Your task to perform on an android device: change the clock display to analog Image 0: 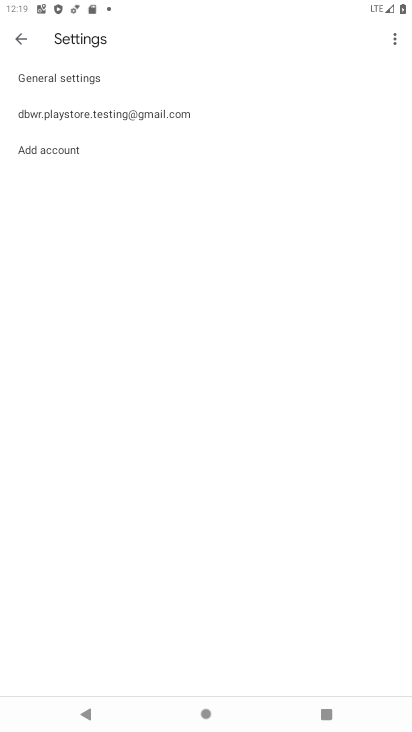
Step 0: press home button
Your task to perform on an android device: change the clock display to analog Image 1: 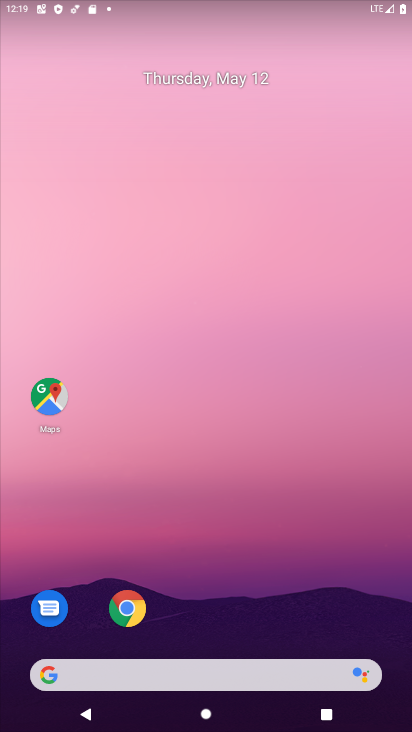
Step 1: drag from (264, 643) to (265, 108)
Your task to perform on an android device: change the clock display to analog Image 2: 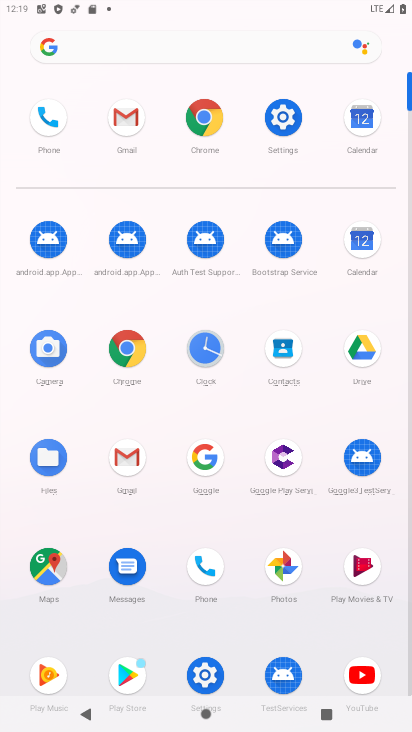
Step 2: click (208, 355)
Your task to perform on an android device: change the clock display to analog Image 3: 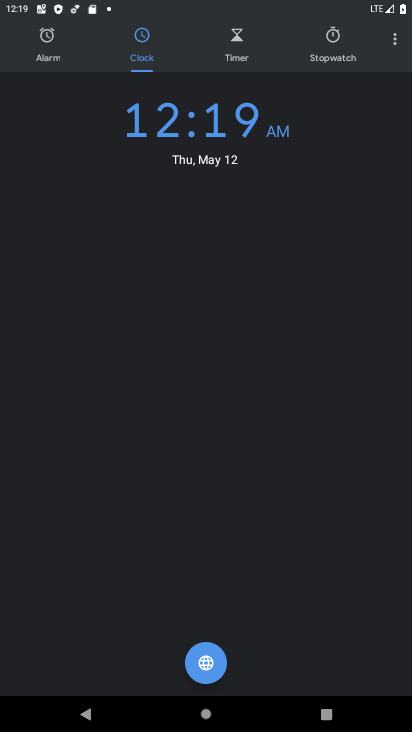
Step 3: click (400, 40)
Your task to perform on an android device: change the clock display to analog Image 4: 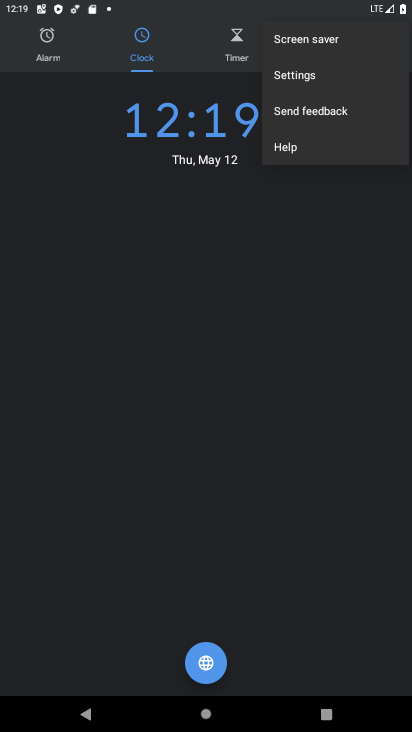
Step 4: click (301, 72)
Your task to perform on an android device: change the clock display to analog Image 5: 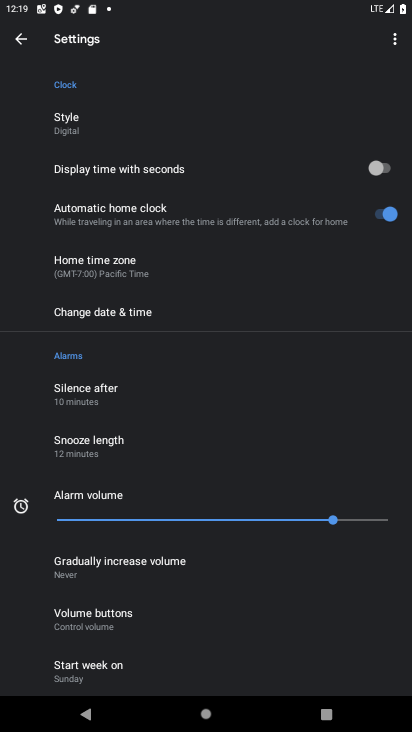
Step 5: click (72, 133)
Your task to perform on an android device: change the clock display to analog Image 6: 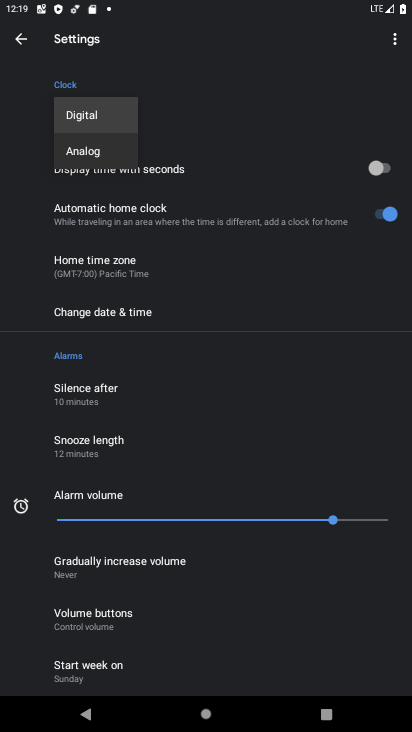
Step 6: click (84, 154)
Your task to perform on an android device: change the clock display to analog Image 7: 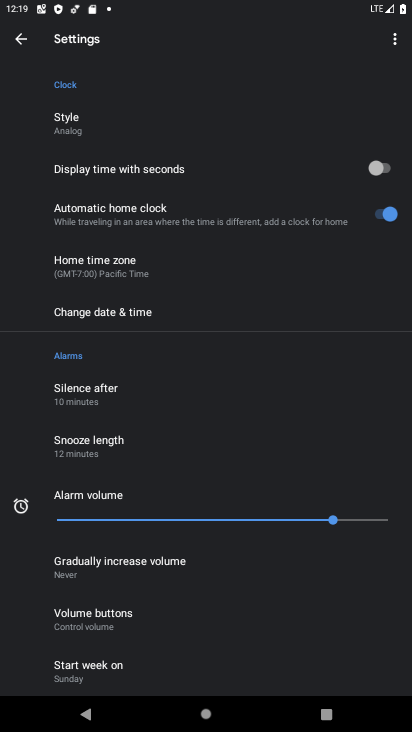
Step 7: task complete